Your task to perform on an android device: Open the map Image 0: 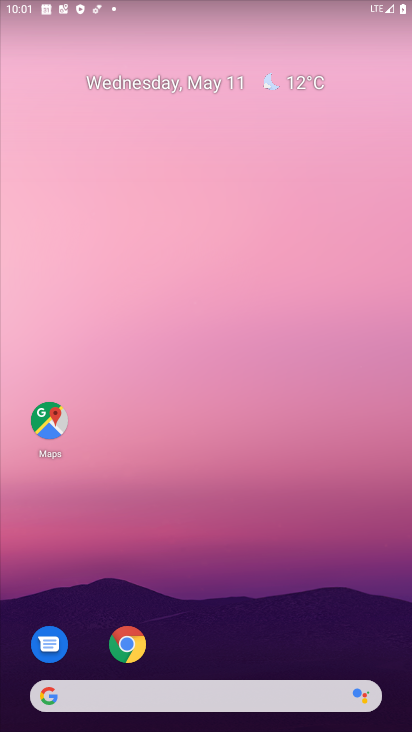
Step 0: click (65, 442)
Your task to perform on an android device: Open the map Image 1: 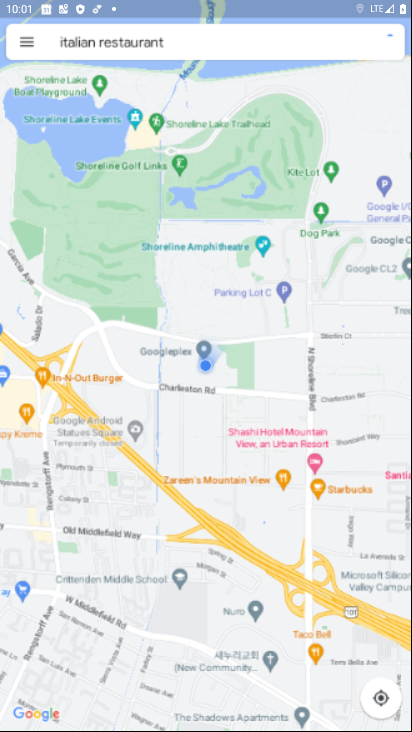
Step 1: task complete